Your task to perform on an android device: What's the weather today? Image 0: 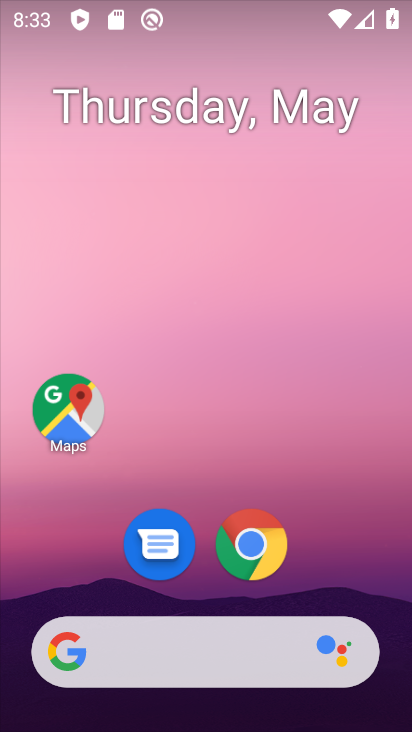
Step 0: click (143, 651)
Your task to perform on an android device: What's the weather today? Image 1: 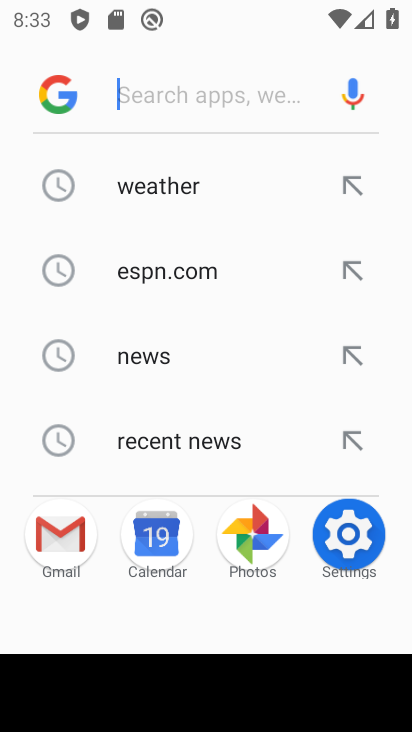
Step 1: type "what's the weather today"
Your task to perform on an android device: What's the weather today? Image 2: 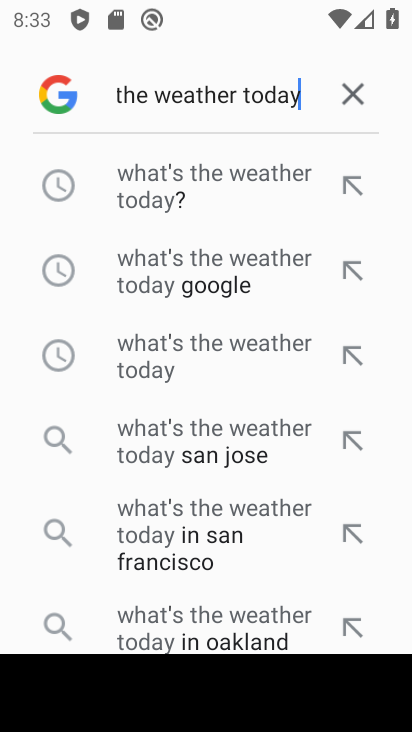
Step 2: click (169, 194)
Your task to perform on an android device: What's the weather today? Image 3: 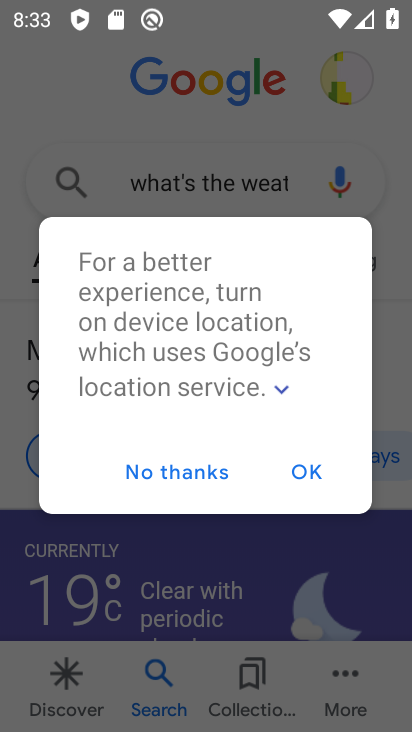
Step 3: click (192, 473)
Your task to perform on an android device: What's the weather today? Image 4: 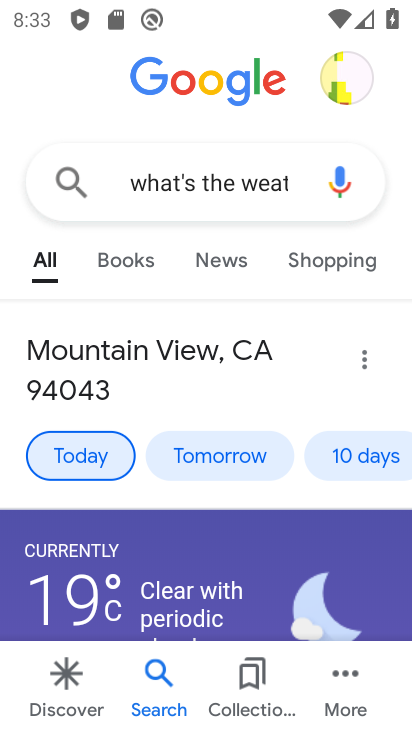
Step 4: task complete